Your task to perform on an android device: What's the weather going to be tomorrow? Image 0: 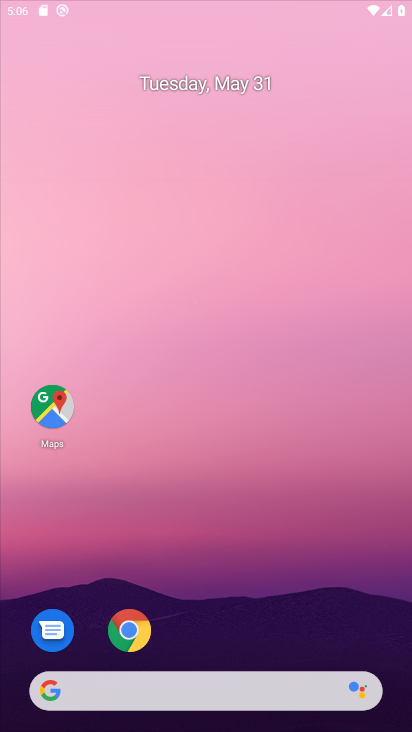
Step 0: click (218, 33)
Your task to perform on an android device: What's the weather going to be tomorrow? Image 1: 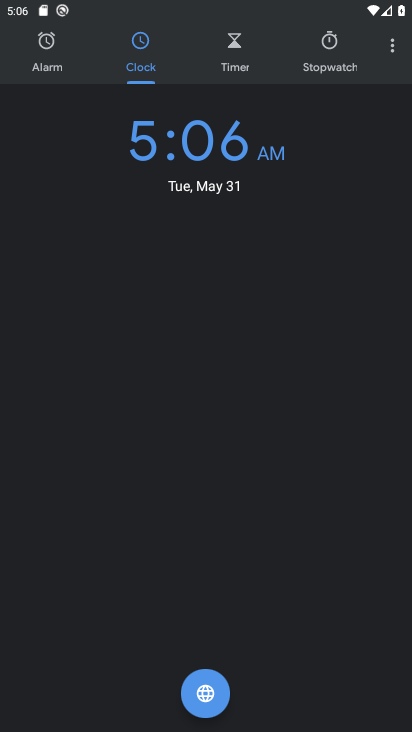
Step 1: press home button
Your task to perform on an android device: What's the weather going to be tomorrow? Image 2: 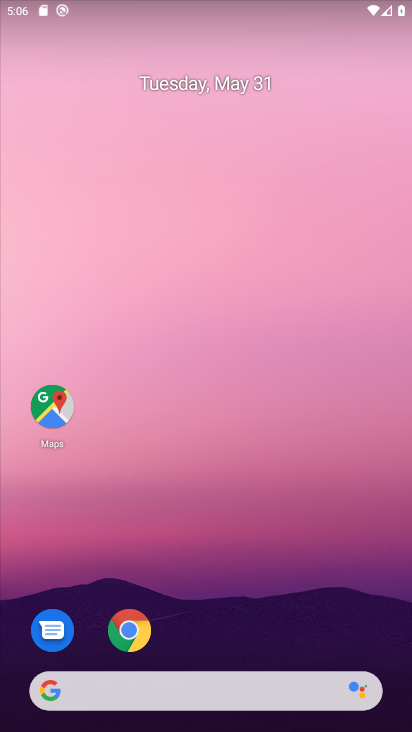
Step 2: click (177, 674)
Your task to perform on an android device: What's the weather going to be tomorrow? Image 3: 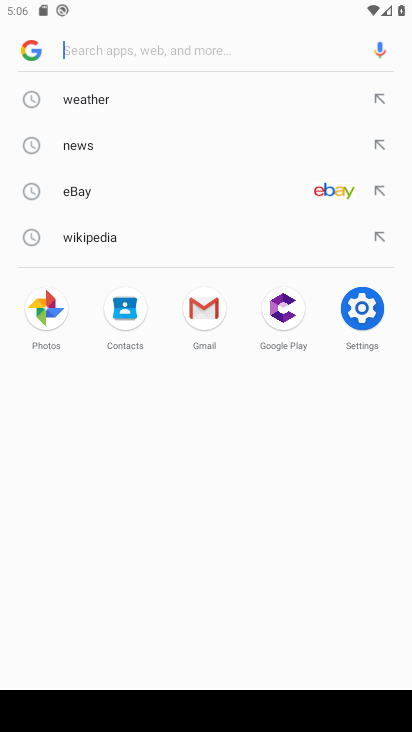
Step 3: click (140, 107)
Your task to perform on an android device: What's the weather going to be tomorrow? Image 4: 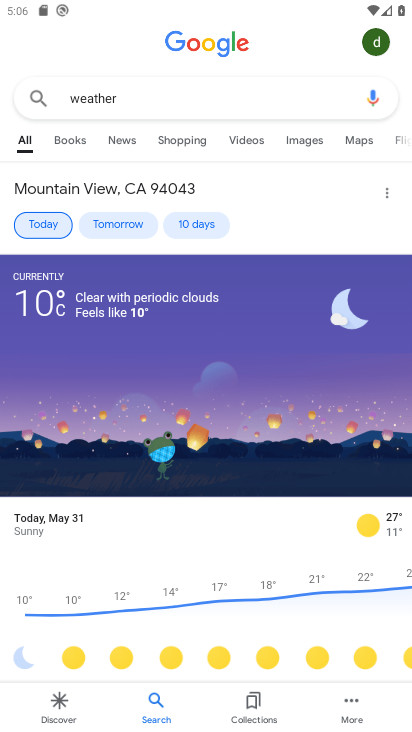
Step 4: click (135, 231)
Your task to perform on an android device: What's the weather going to be tomorrow? Image 5: 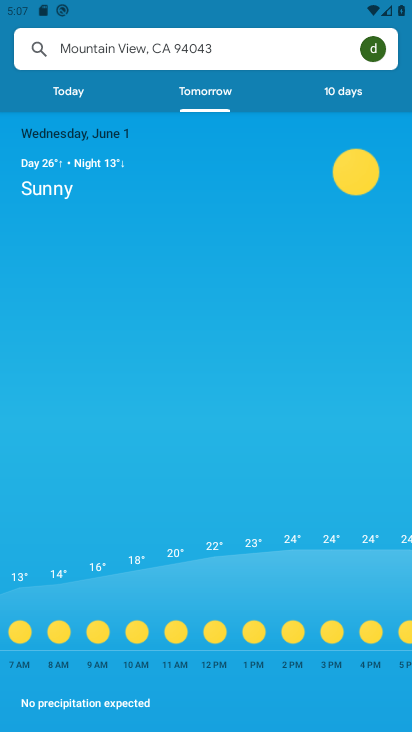
Step 5: task complete